Your task to perform on an android device: turn on priority inbox in the gmail app Image 0: 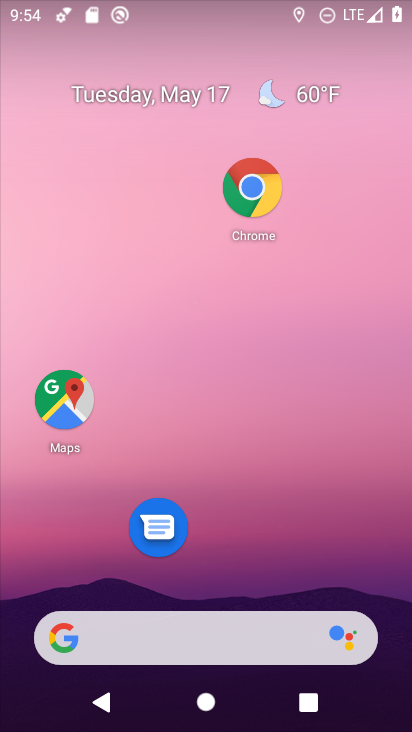
Step 0: drag from (265, 551) to (291, 80)
Your task to perform on an android device: turn on priority inbox in the gmail app Image 1: 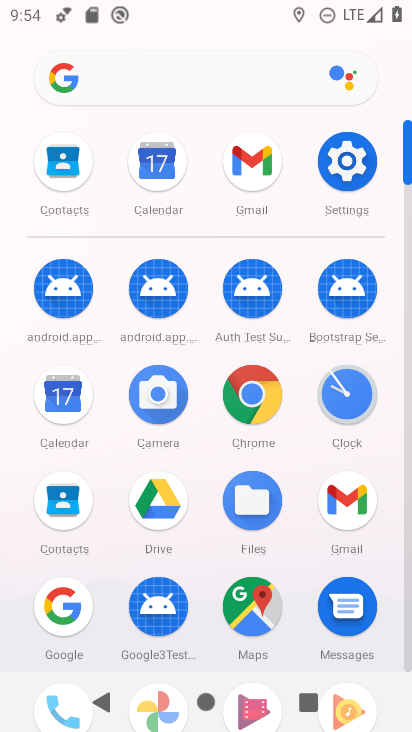
Step 1: click (341, 517)
Your task to perform on an android device: turn on priority inbox in the gmail app Image 2: 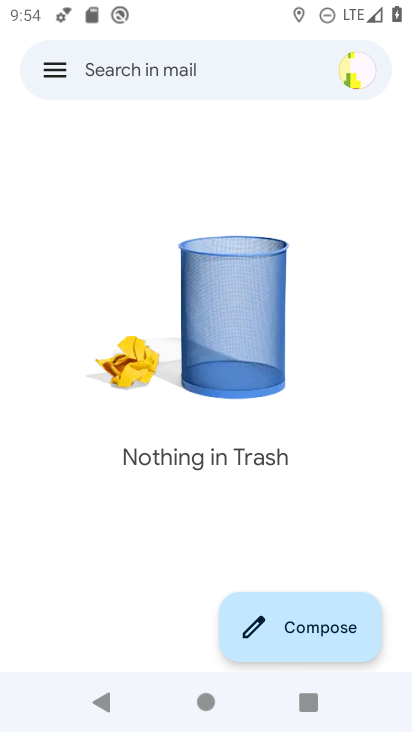
Step 2: click (69, 79)
Your task to perform on an android device: turn on priority inbox in the gmail app Image 3: 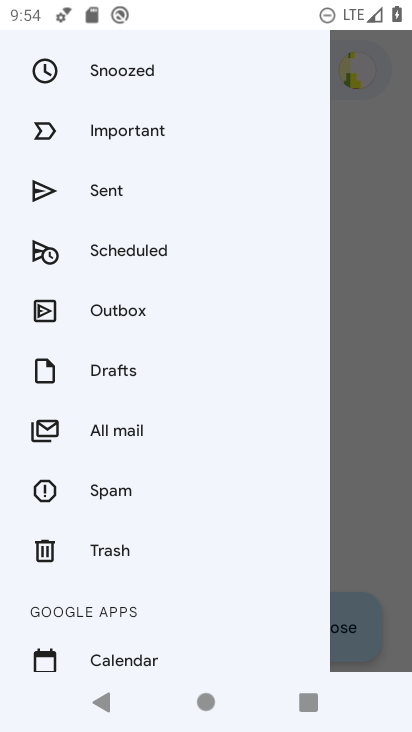
Step 3: drag from (130, 633) to (160, 260)
Your task to perform on an android device: turn on priority inbox in the gmail app Image 4: 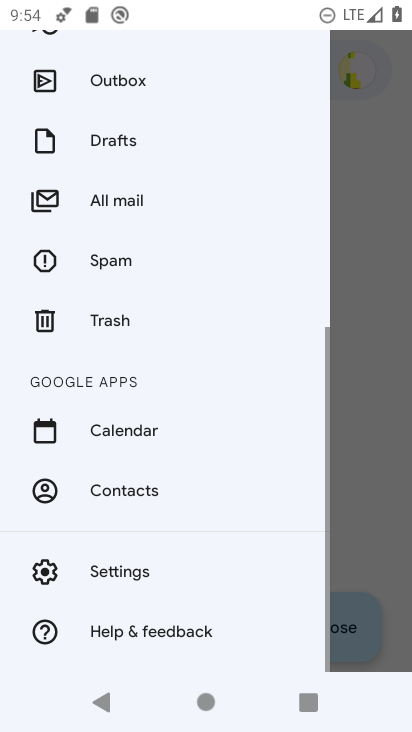
Step 4: click (150, 555)
Your task to perform on an android device: turn on priority inbox in the gmail app Image 5: 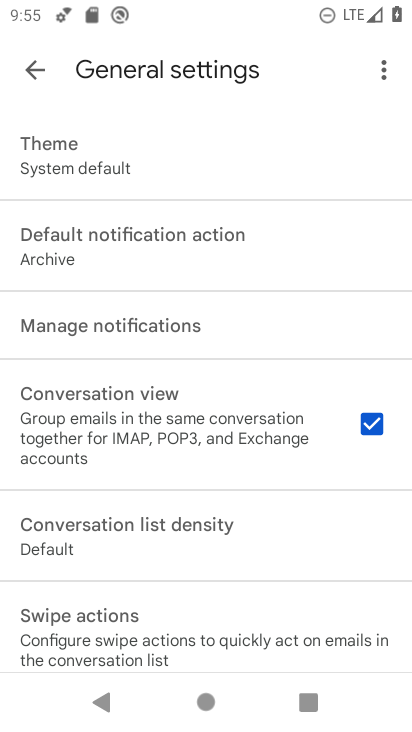
Step 5: drag from (173, 222) to (128, 555)
Your task to perform on an android device: turn on priority inbox in the gmail app Image 6: 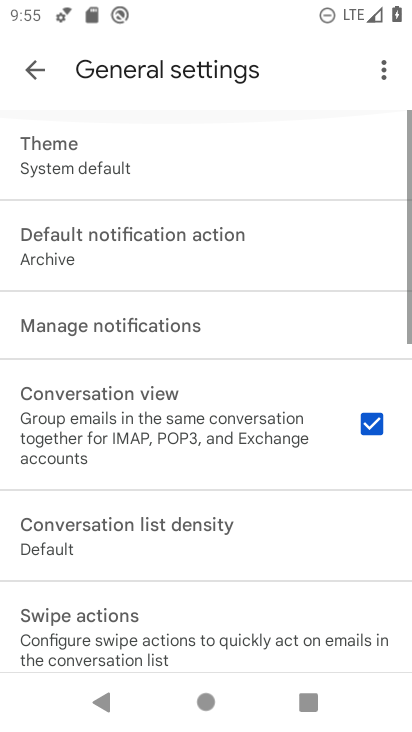
Step 6: drag from (128, 555) to (191, 190)
Your task to perform on an android device: turn on priority inbox in the gmail app Image 7: 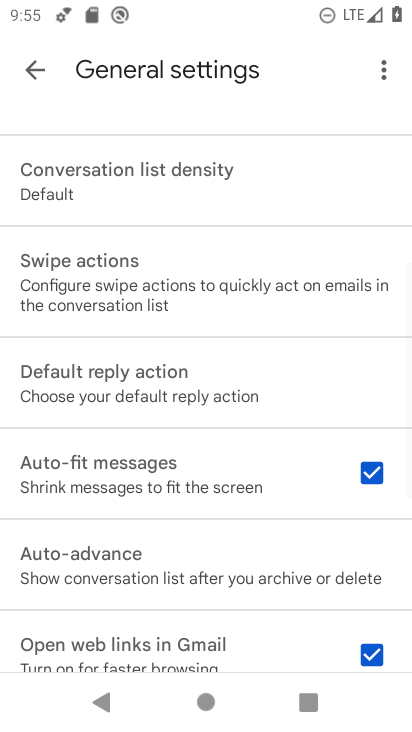
Step 7: click (38, 78)
Your task to perform on an android device: turn on priority inbox in the gmail app Image 8: 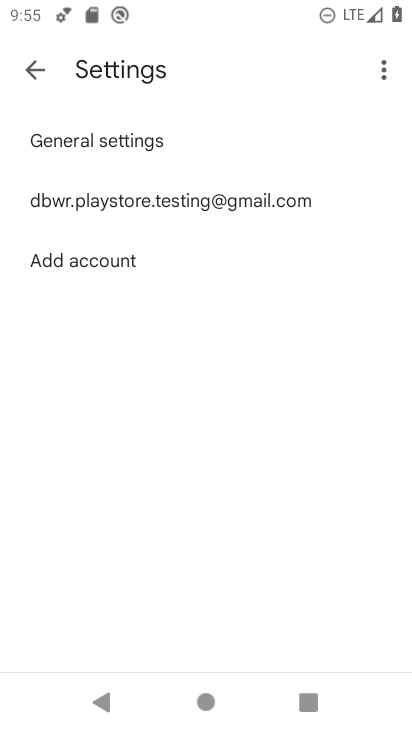
Step 8: click (98, 201)
Your task to perform on an android device: turn on priority inbox in the gmail app Image 9: 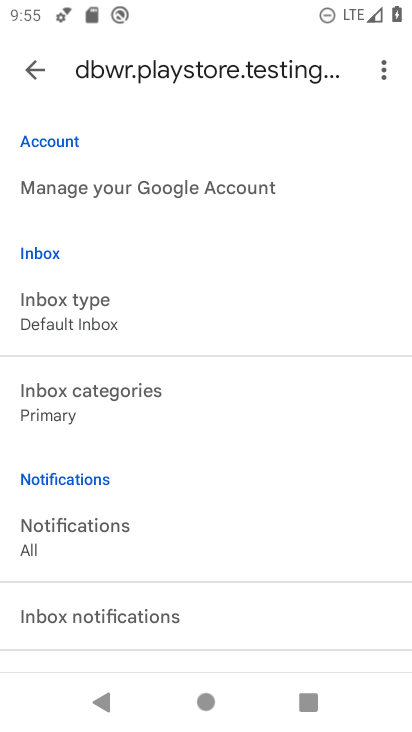
Step 9: click (173, 334)
Your task to perform on an android device: turn on priority inbox in the gmail app Image 10: 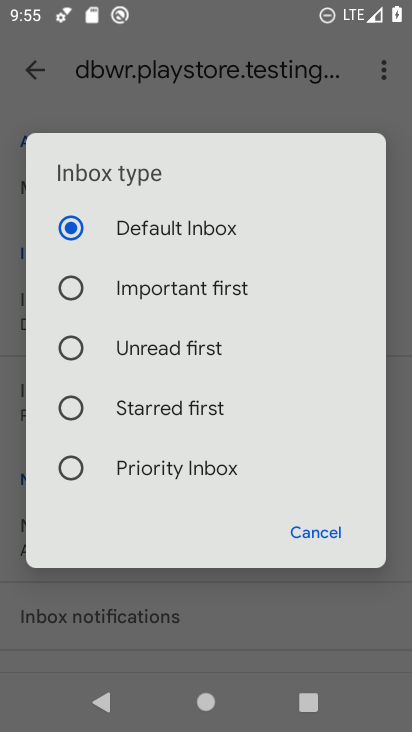
Step 10: click (138, 487)
Your task to perform on an android device: turn on priority inbox in the gmail app Image 11: 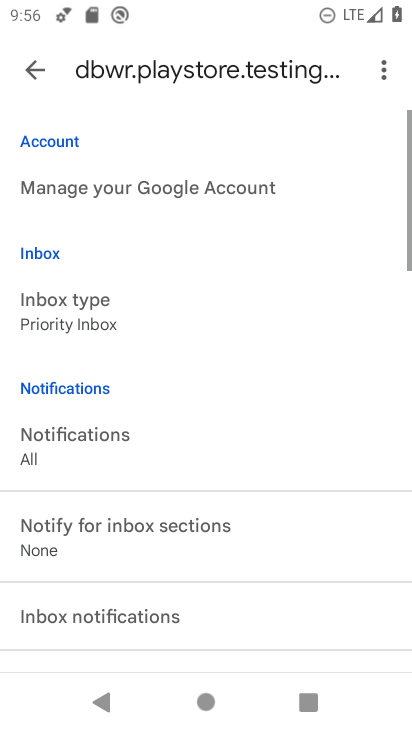
Step 11: task complete